Your task to perform on an android device: Open Youtube and go to "Your channel" Image 0: 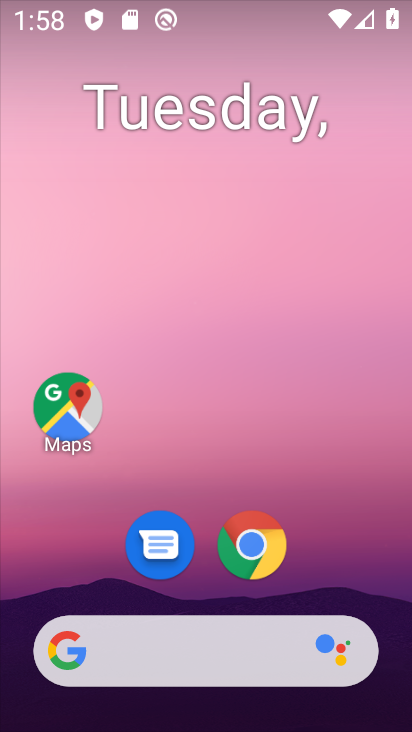
Step 0: drag from (307, 382) to (256, 11)
Your task to perform on an android device: Open Youtube and go to "Your channel" Image 1: 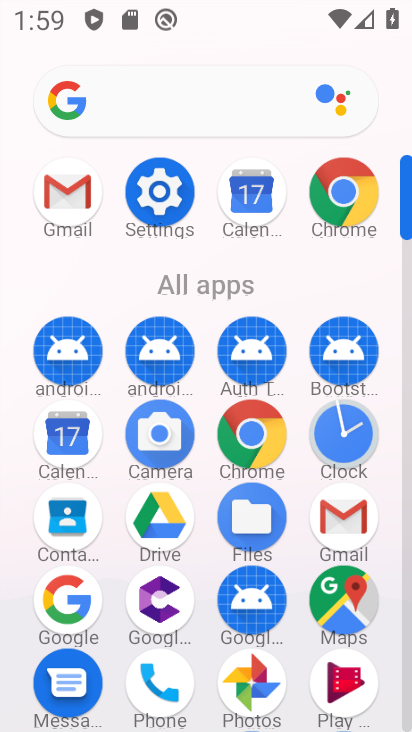
Step 1: drag from (16, 490) to (19, 232)
Your task to perform on an android device: Open Youtube and go to "Your channel" Image 2: 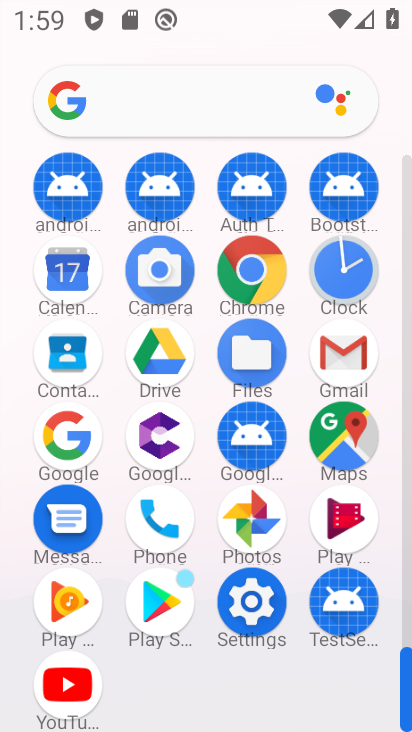
Step 2: click (65, 681)
Your task to perform on an android device: Open Youtube and go to "Your channel" Image 3: 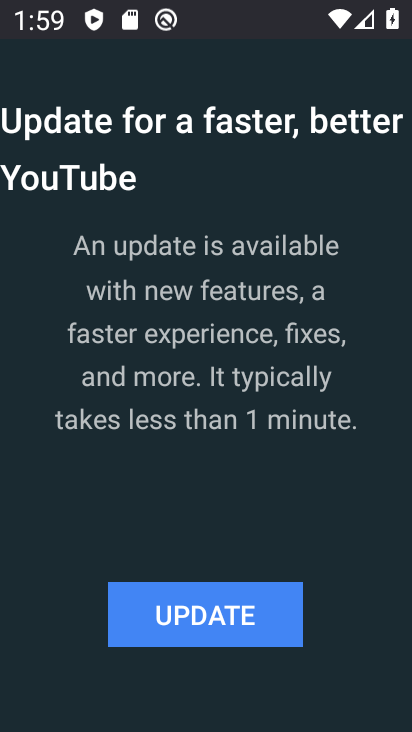
Step 3: click (184, 609)
Your task to perform on an android device: Open Youtube and go to "Your channel" Image 4: 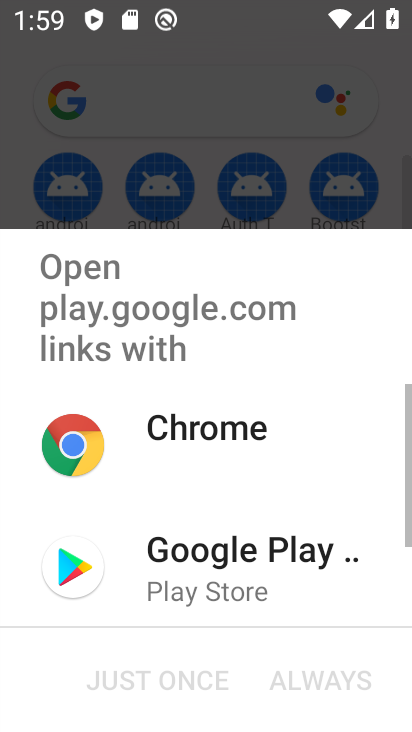
Step 4: click (185, 560)
Your task to perform on an android device: Open Youtube and go to "Your channel" Image 5: 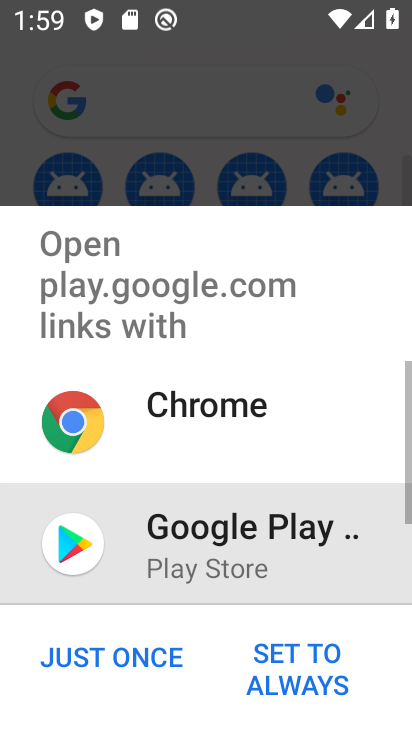
Step 5: click (132, 639)
Your task to perform on an android device: Open Youtube and go to "Your channel" Image 6: 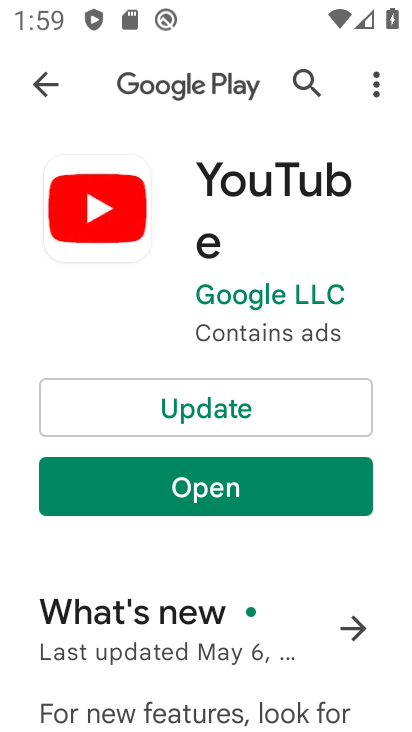
Step 6: click (180, 404)
Your task to perform on an android device: Open Youtube and go to "Your channel" Image 7: 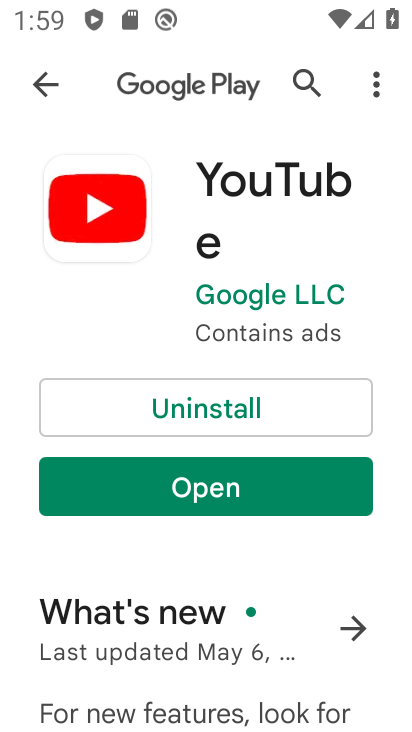
Step 7: click (193, 491)
Your task to perform on an android device: Open Youtube and go to "Your channel" Image 8: 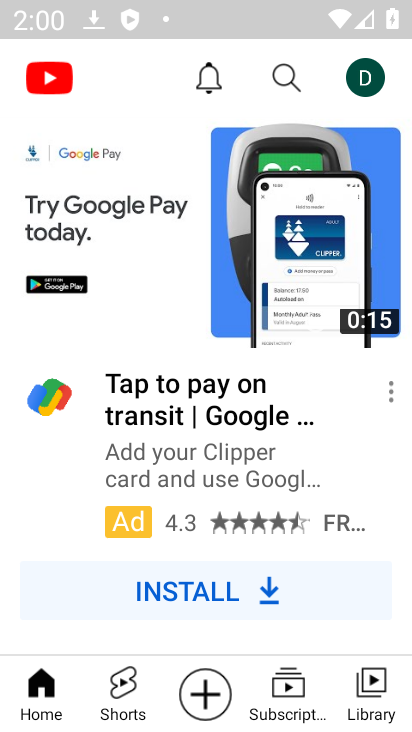
Step 8: click (372, 692)
Your task to perform on an android device: Open Youtube and go to "Your channel" Image 9: 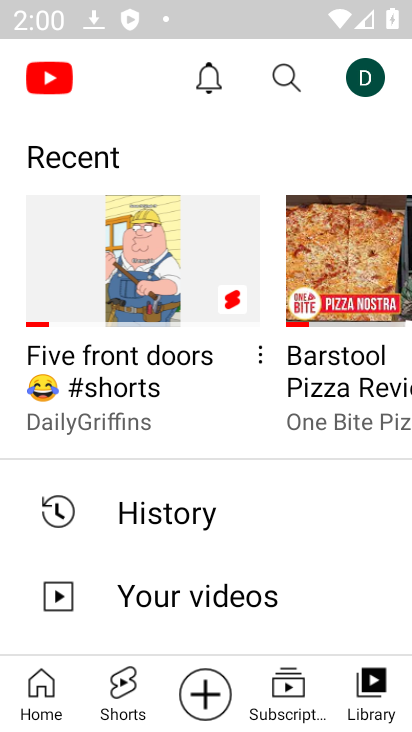
Step 9: click (262, 593)
Your task to perform on an android device: Open Youtube and go to "Your channel" Image 10: 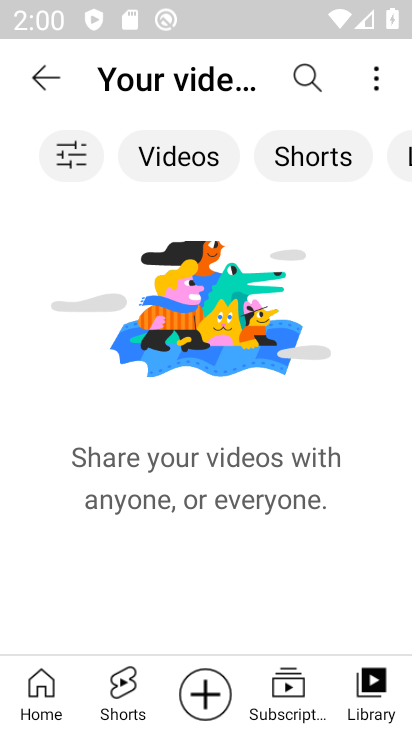
Step 10: task complete